Your task to perform on an android device: see sites visited before in the chrome app Image 0: 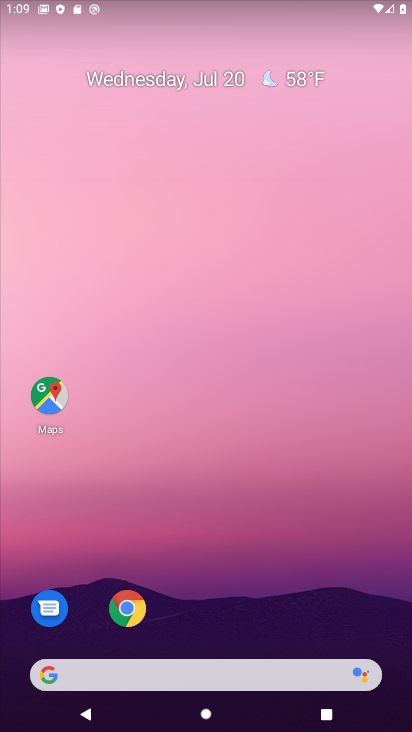
Step 0: drag from (238, 727) to (212, 236)
Your task to perform on an android device: see sites visited before in the chrome app Image 1: 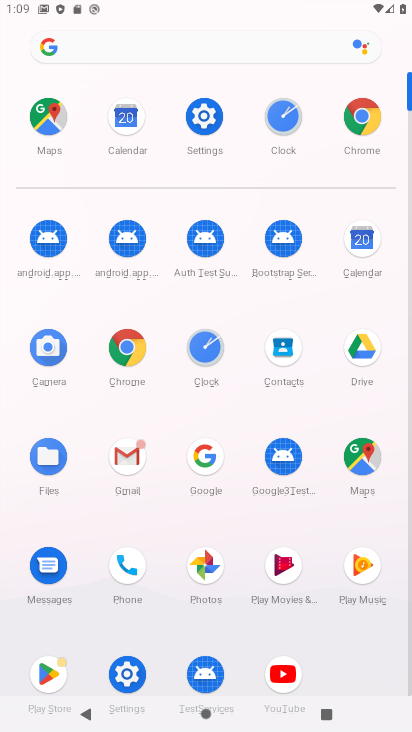
Step 1: click (128, 351)
Your task to perform on an android device: see sites visited before in the chrome app Image 2: 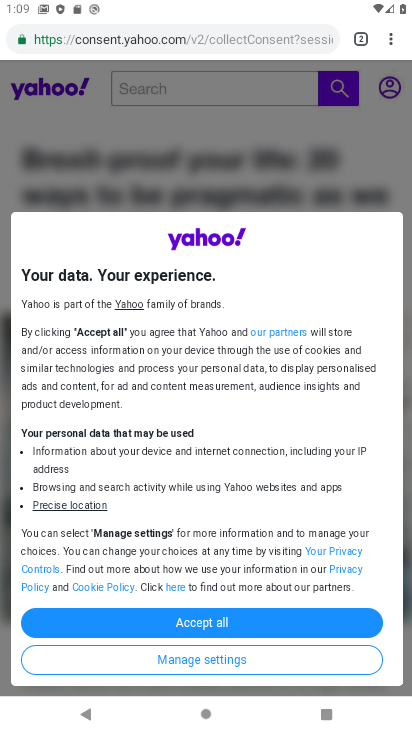
Step 2: click (389, 42)
Your task to perform on an android device: see sites visited before in the chrome app Image 3: 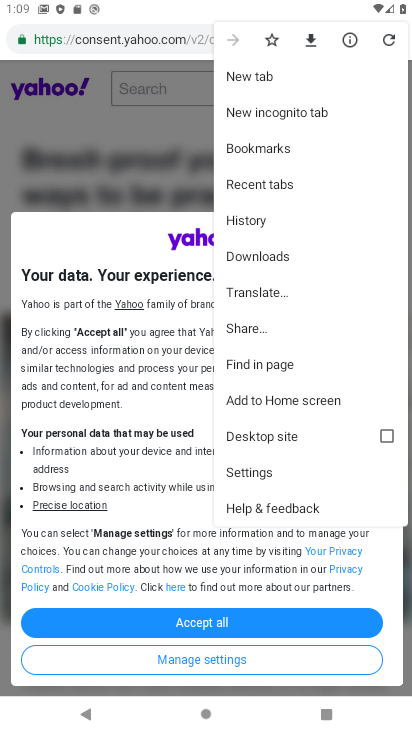
Step 3: click (253, 214)
Your task to perform on an android device: see sites visited before in the chrome app Image 4: 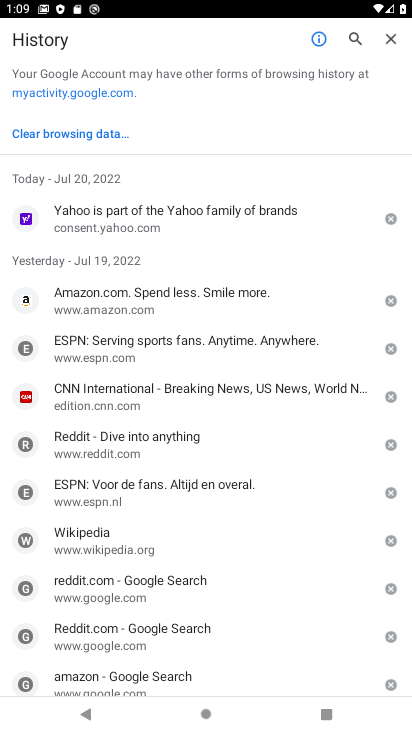
Step 4: task complete